Your task to perform on an android device: set the stopwatch Image 0: 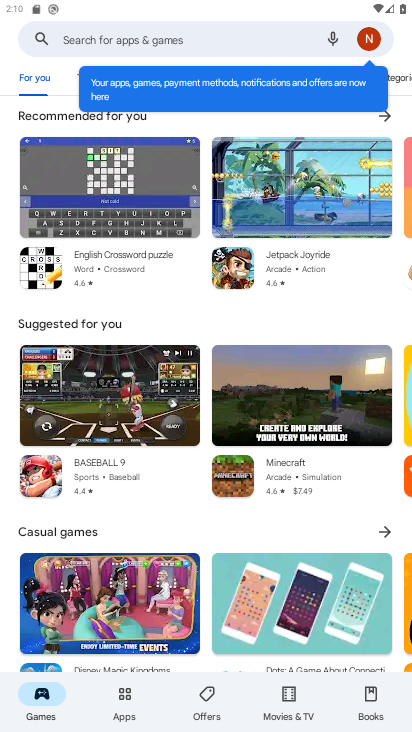
Step 0: press home button
Your task to perform on an android device: set the stopwatch Image 1: 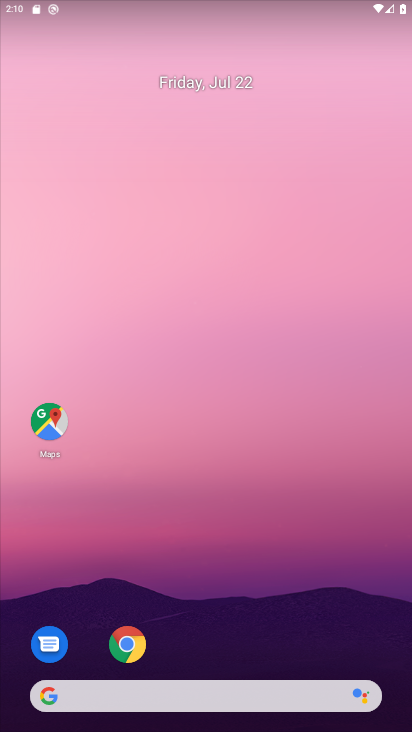
Step 1: drag from (221, 668) to (211, 539)
Your task to perform on an android device: set the stopwatch Image 2: 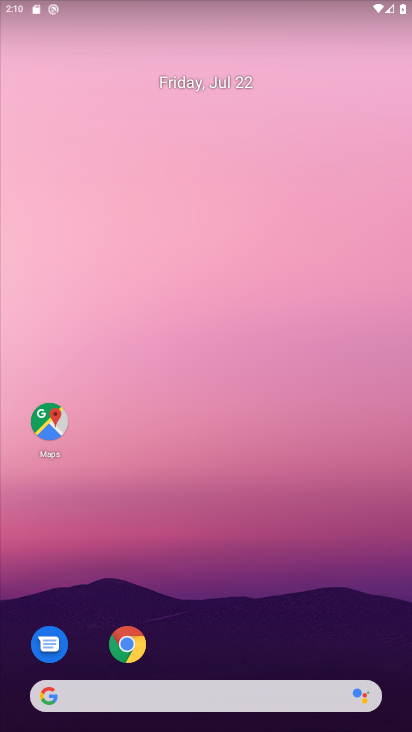
Step 2: drag from (217, 662) to (204, 533)
Your task to perform on an android device: set the stopwatch Image 3: 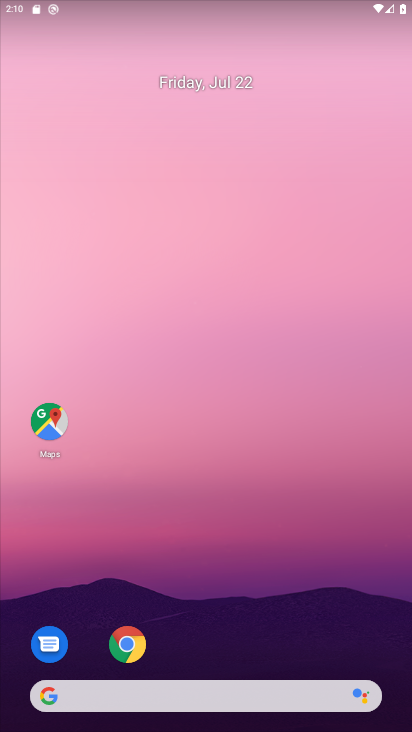
Step 3: drag from (248, 655) to (246, 421)
Your task to perform on an android device: set the stopwatch Image 4: 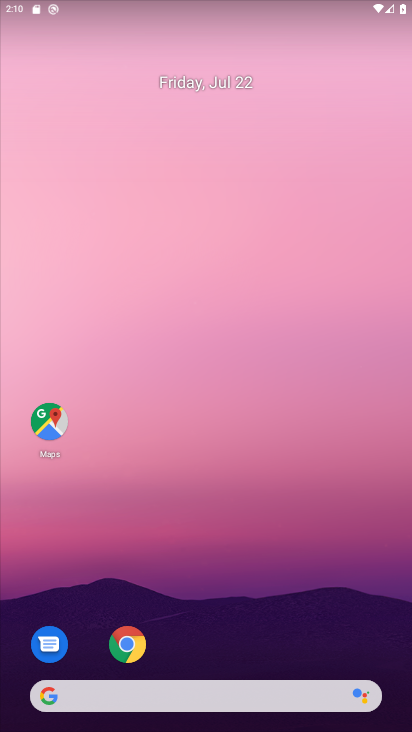
Step 4: drag from (222, 665) to (223, 334)
Your task to perform on an android device: set the stopwatch Image 5: 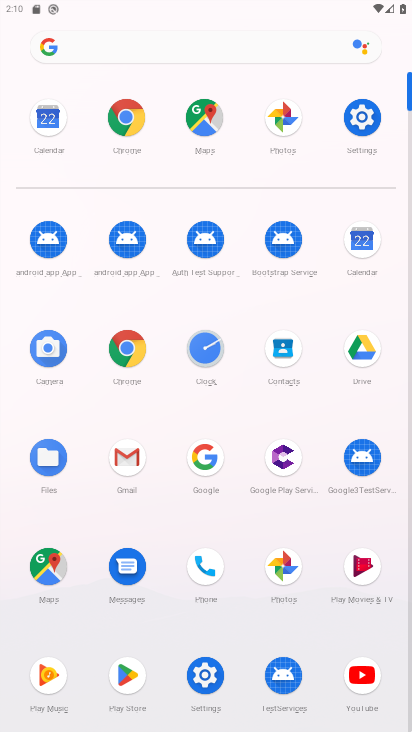
Step 5: click (201, 345)
Your task to perform on an android device: set the stopwatch Image 6: 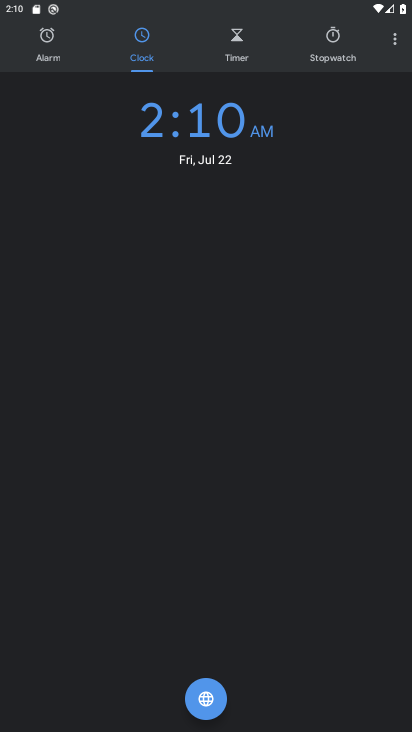
Step 6: click (331, 54)
Your task to perform on an android device: set the stopwatch Image 7: 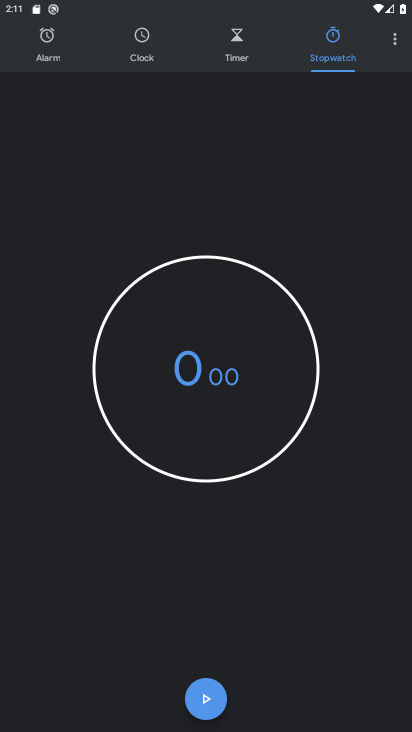
Step 7: task complete